Your task to perform on an android device: add a contact Image 0: 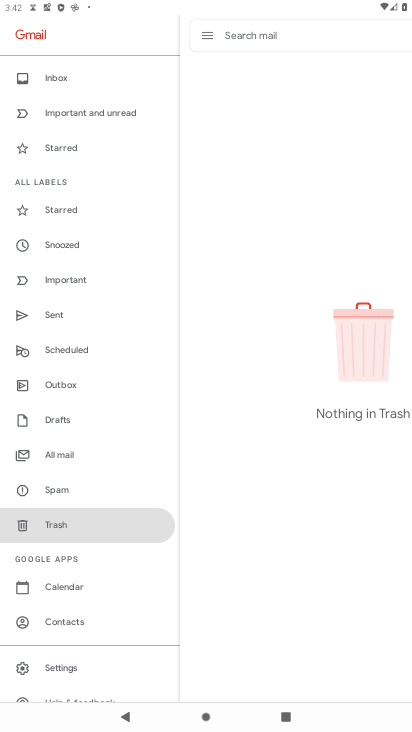
Step 0: press home button
Your task to perform on an android device: add a contact Image 1: 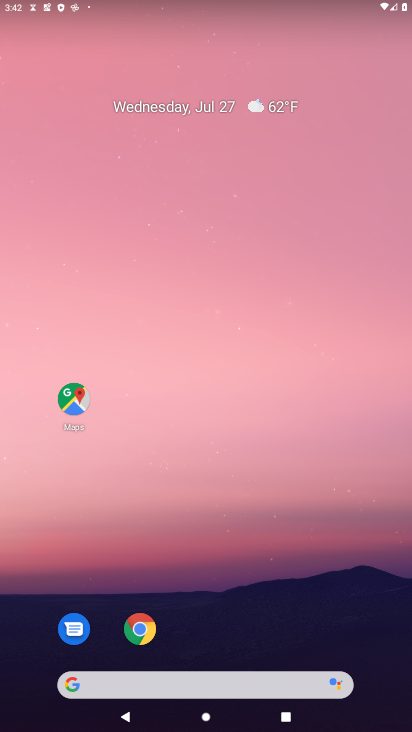
Step 1: drag from (205, 677) to (403, 332)
Your task to perform on an android device: add a contact Image 2: 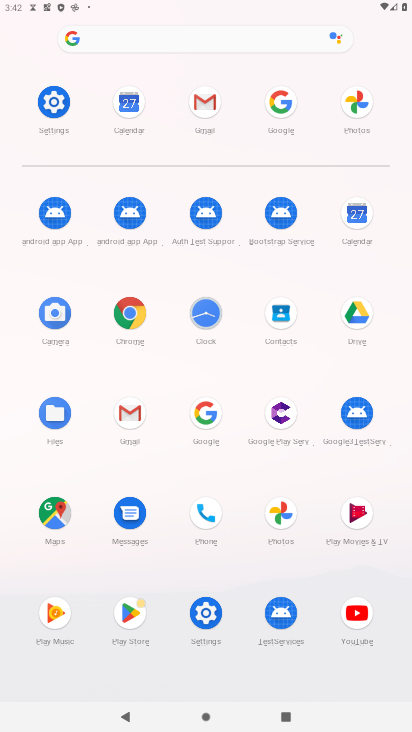
Step 2: click (281, 311)
Your task to perform on an android device: add a contact Image 3: 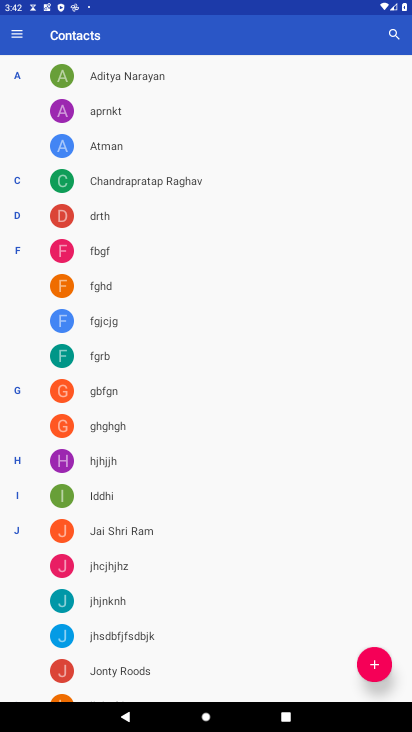
Step 3: click (377, 664)
Your task to perform on an android device: add a contact Image 4: 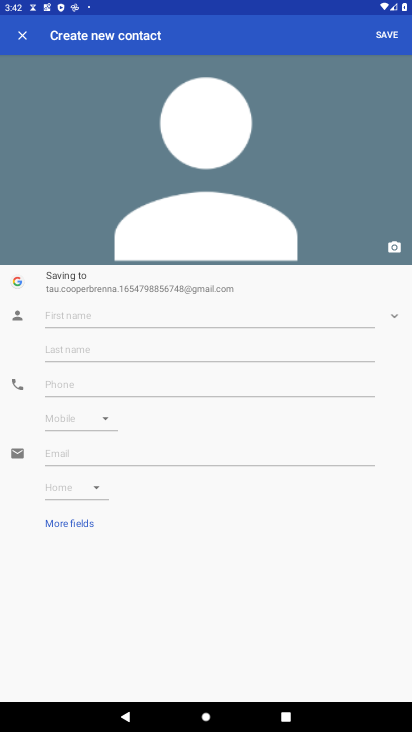
Step 4: click (299, 311)
Your task to perform on an android device: add a contact Image 5: 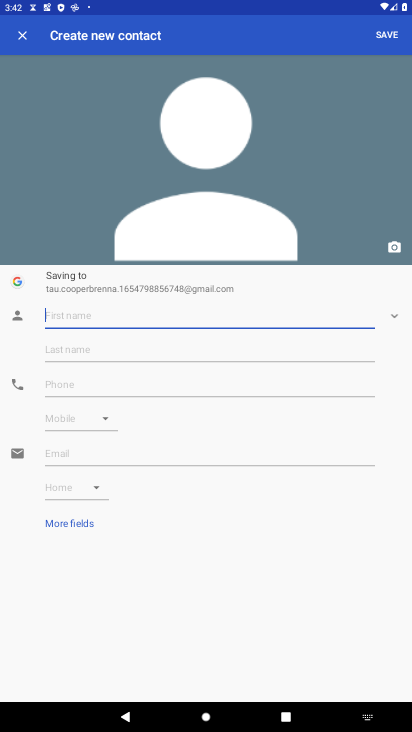
Step 5: type "Pakeshwar"
Your task to perform on an android device: add a contact Image 6: 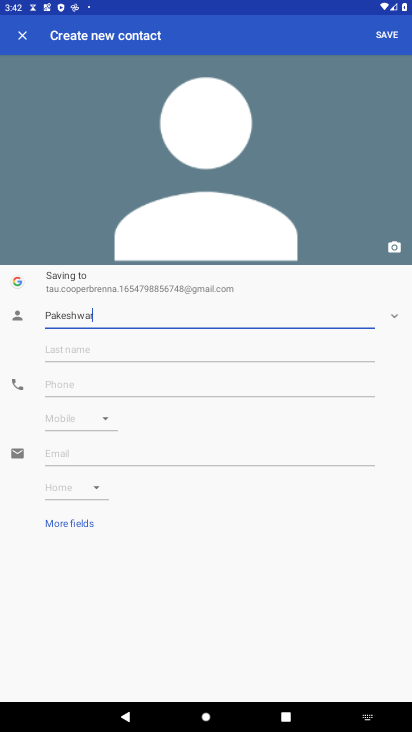
Step 6: click (311, 351)
Your task to perform on an android device: add a contact Image 7: 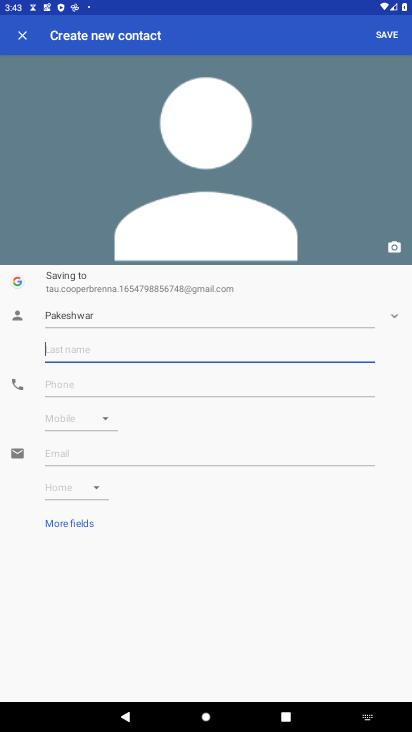
Step 7: type "Tripathi"
Your task to perform on an android device: add a contact Image 8: 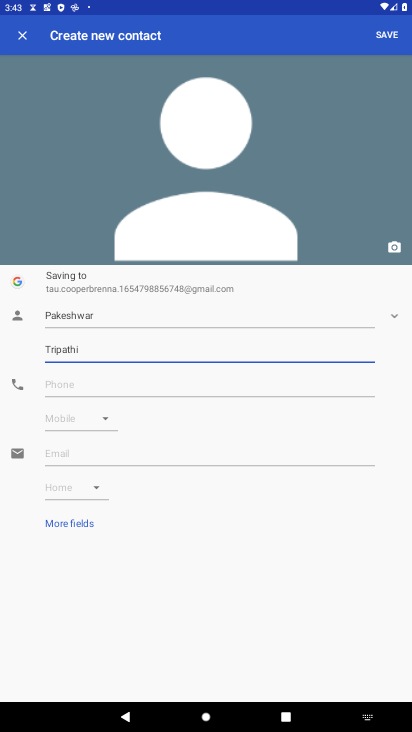
Step 8: click (193, 380)
Your task to perform on an android device: add a contact Image 9: 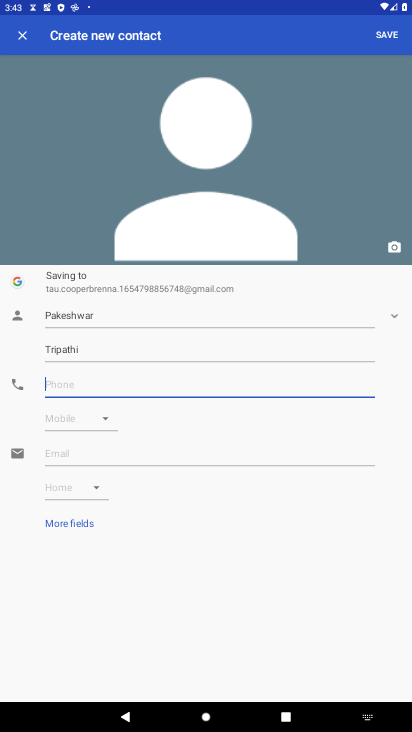
Step 9: type "0998877665544"
Your task to perform on an android device: add a contact Image 10: 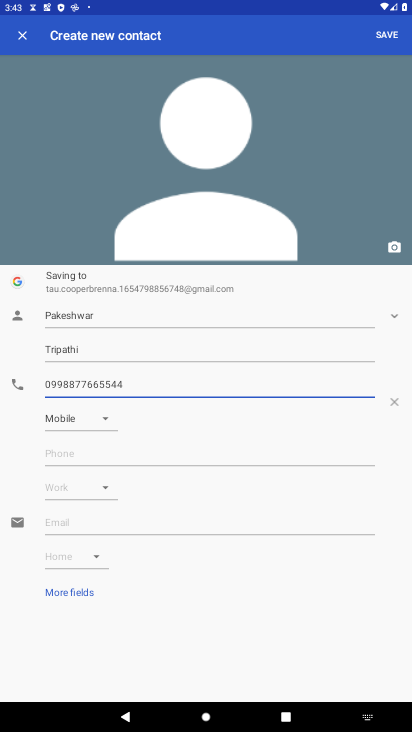
Step 10: click (388, 38)
Your task to perform on an android device: add a contact Image 11: 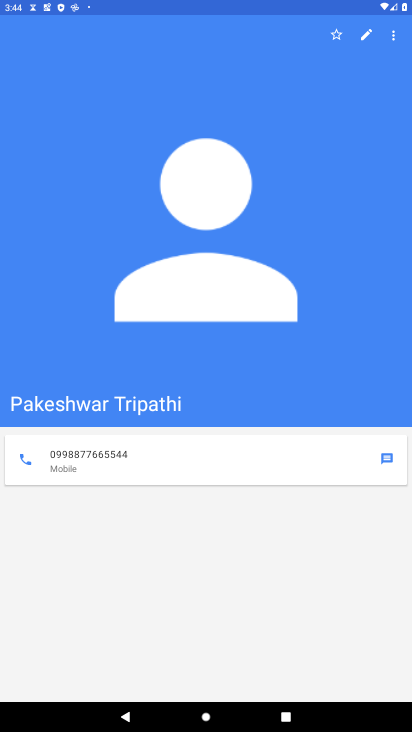
Step 11: task complete